Your task to perform on an android device: choose inbox layout in the gmail app Image 0: 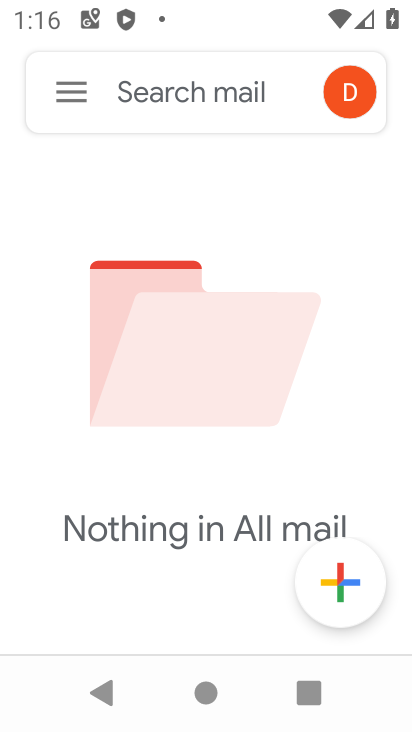
Step 0: click (72, 102)
Your task to perform on an android device: choose inbox layout in the gmail app Image 1: 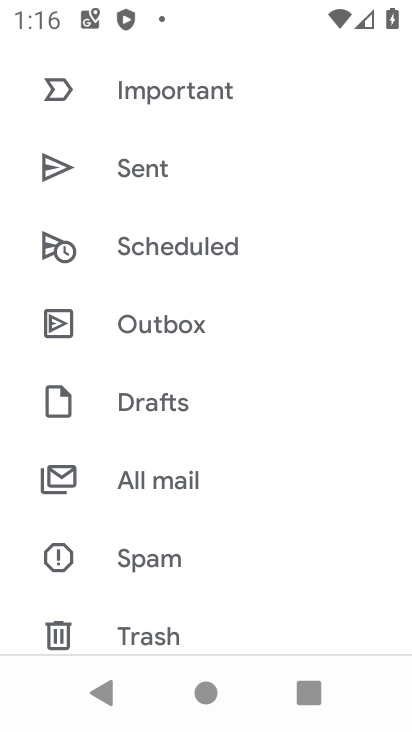
Step 1: drag from (139, 528) to (152, 110)
Your task to perform on an android device: choose inbox layout in the gmail app Image 2: 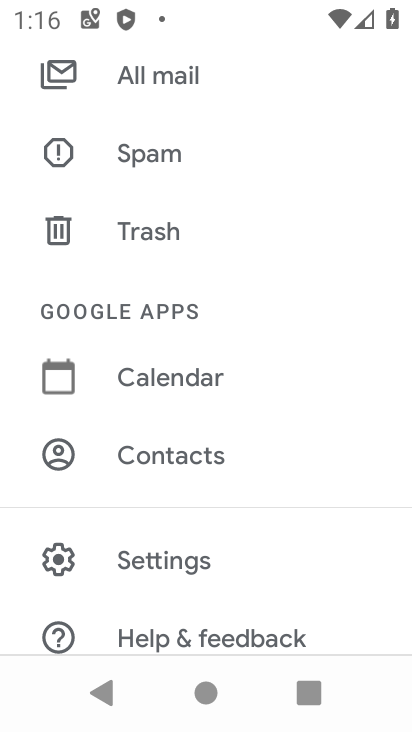
Step 2: click (191, 545)
Your task to perform on an android device: choose inbox layout in the gmail app Image 3: 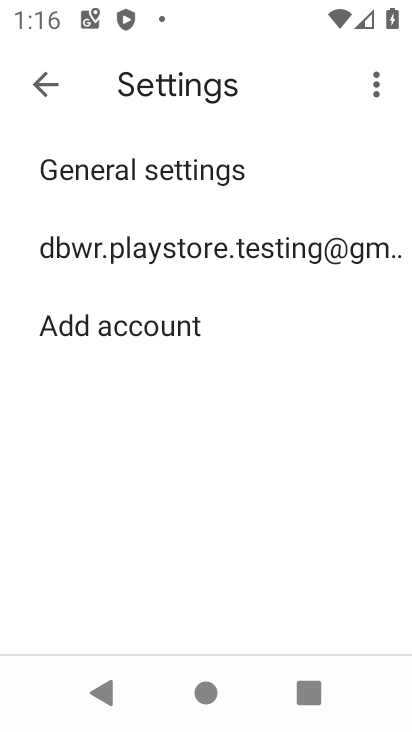
Step 3: click (125, 249)
Your task to perform on an android device: choose inbox layout in the gmail app Image 4: 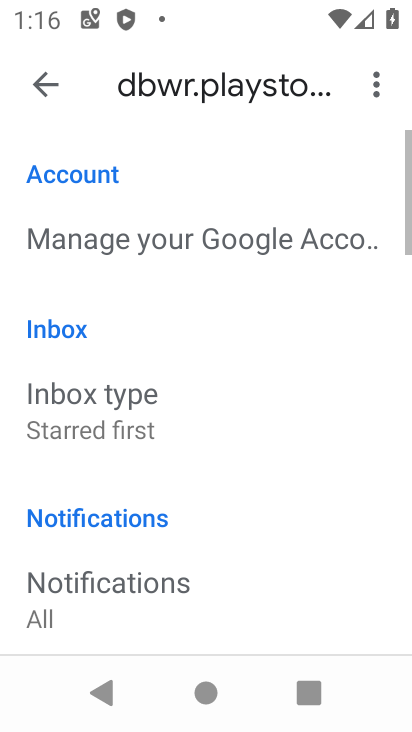
Step 4: click (76, 416)
Your task to perform on an android device: choose inbox layout in the gmail app Image 5: 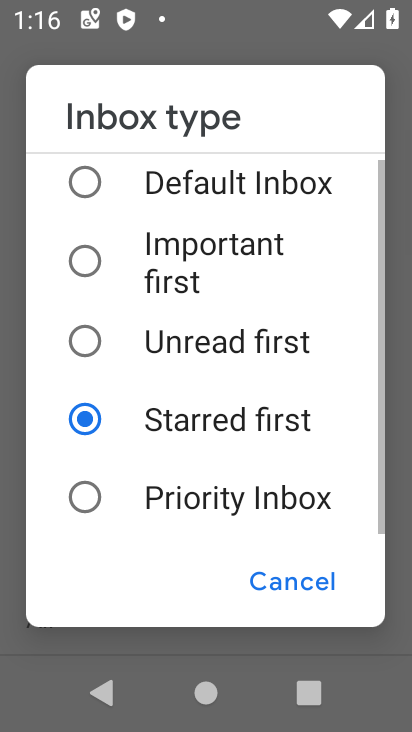
Step 5: click (186, 195)
Your task to perform on an android device: choose inbox layout in the gmail app Image 6: 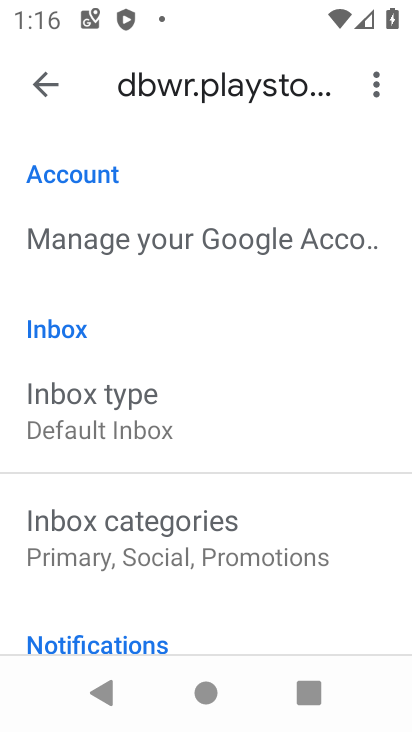
Step 6: task complete